Your task to perform on an android device: Clear the cart on ebay. Add duracell triple a to the cart on ebay Image 0: 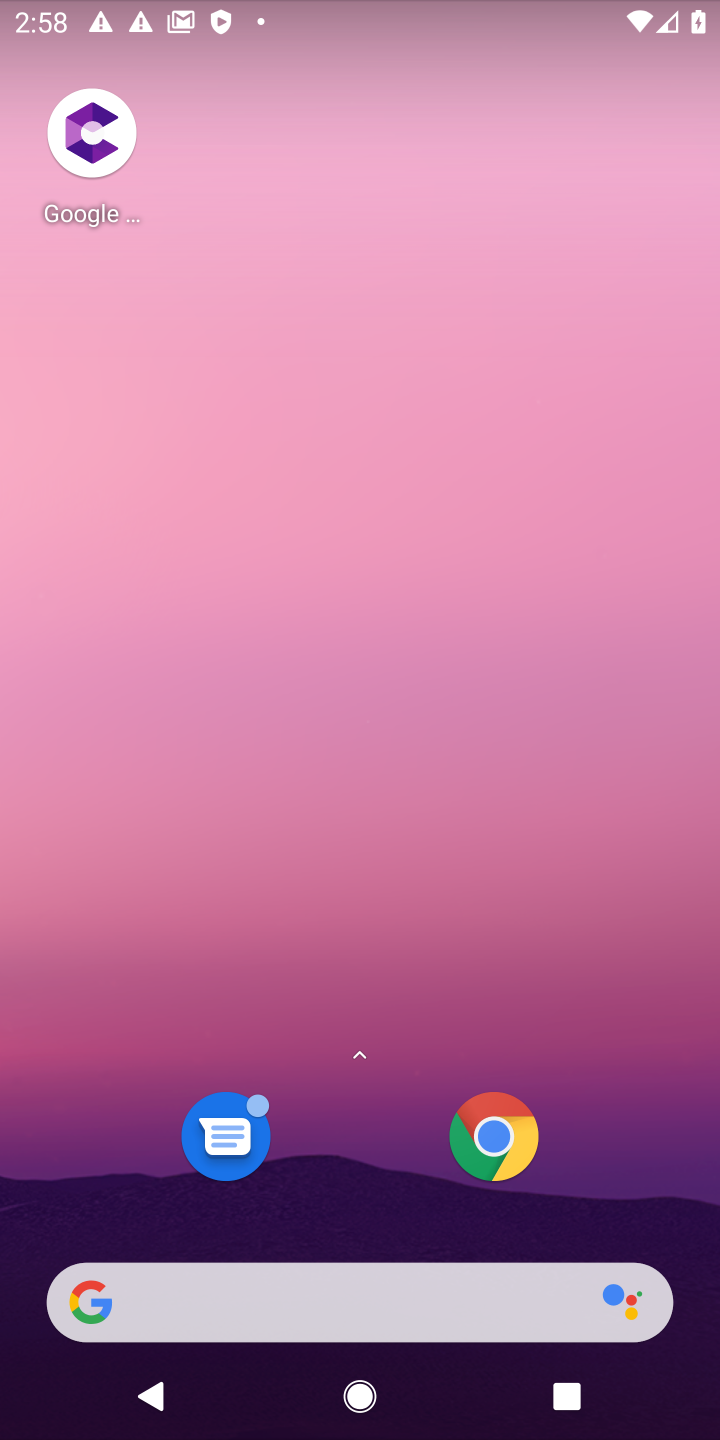
Step 0: drag from (388, 748) to (439, 0)
Your task to perform on an android device: Clear the cart on ebay. Add duracell triple a to the cart on ebay Image 1: 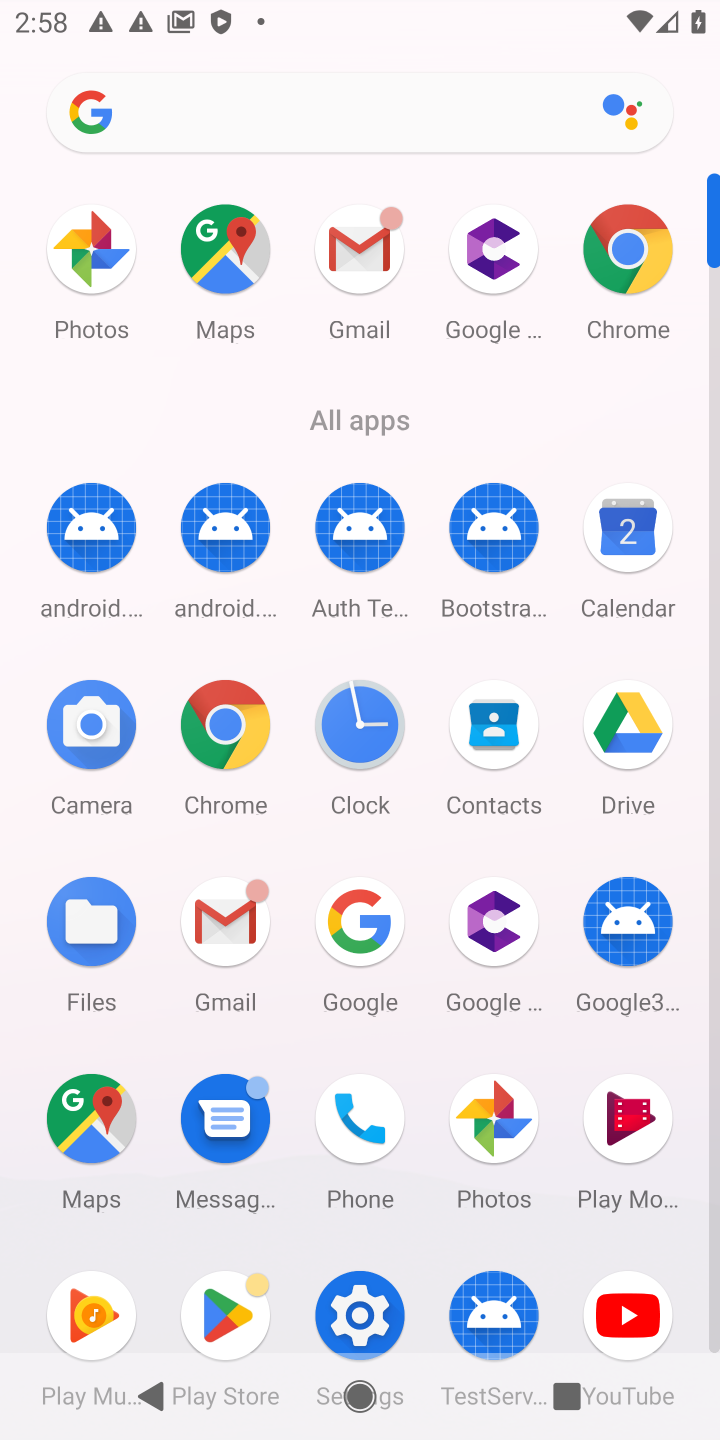
Step 1: click (227, 713)
Your task to perform on an android device: Clear the cart on ebay. Add duracell triple a to the cart on ebay Image 2: 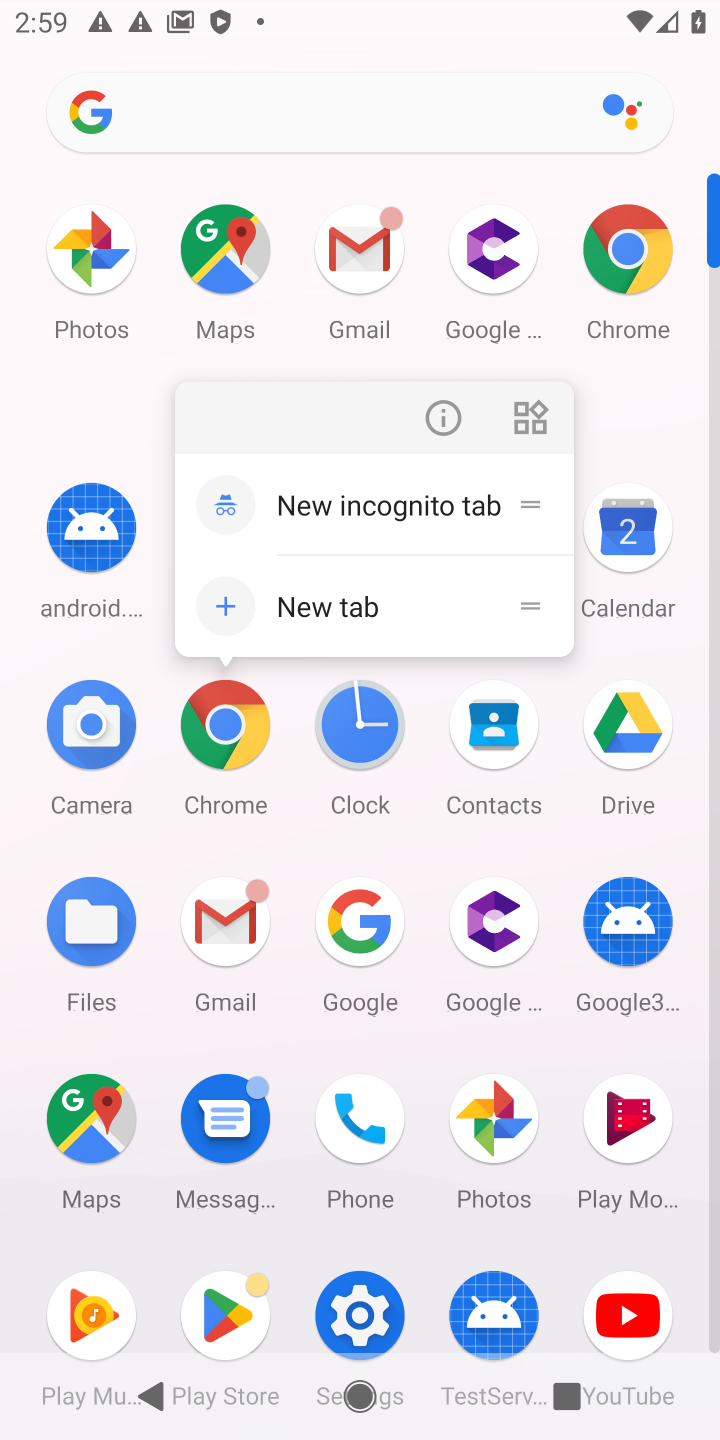
Step 2: click (220, 718)
Your task to perform on an android device: Clear the cart on ebay. Add duracell triple a to the cart on ebay Image 3: 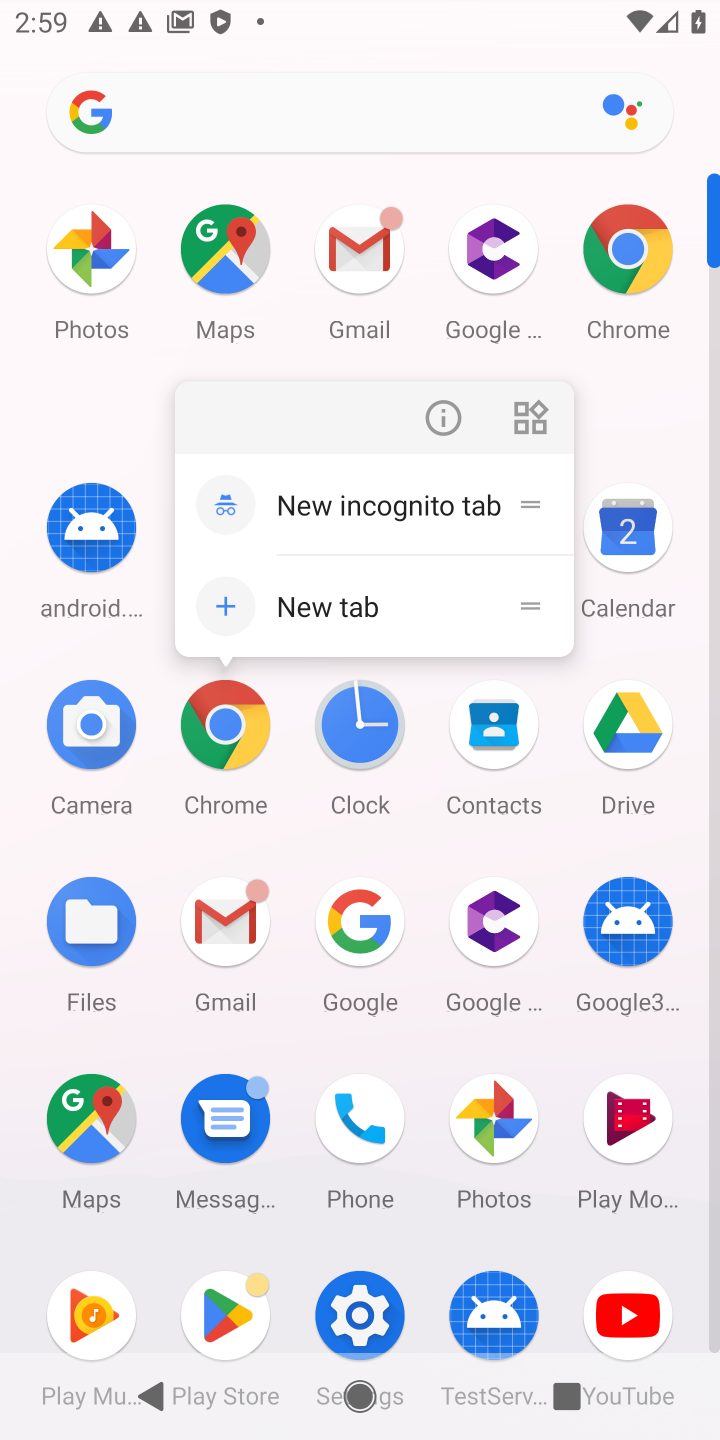
Step 3: click (220, 718)
Your task to perform on an android device: Clear the cart on ebay. Add duracell triple a to the cart on ebay Image 4: 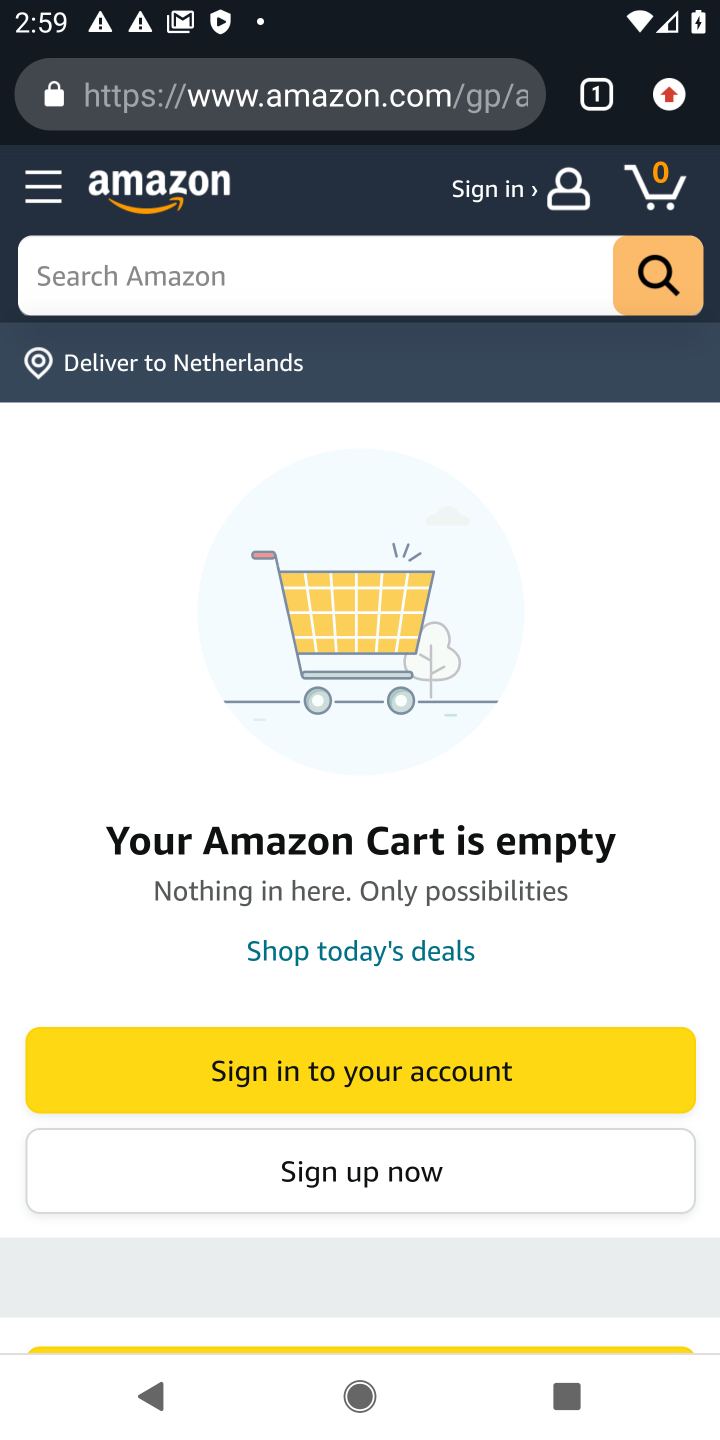
Step 4: click (404, 121)
Your task to perform on an android device: Clear the cart on ebay. Add duracell triple a to the cart on ebay Image 5: 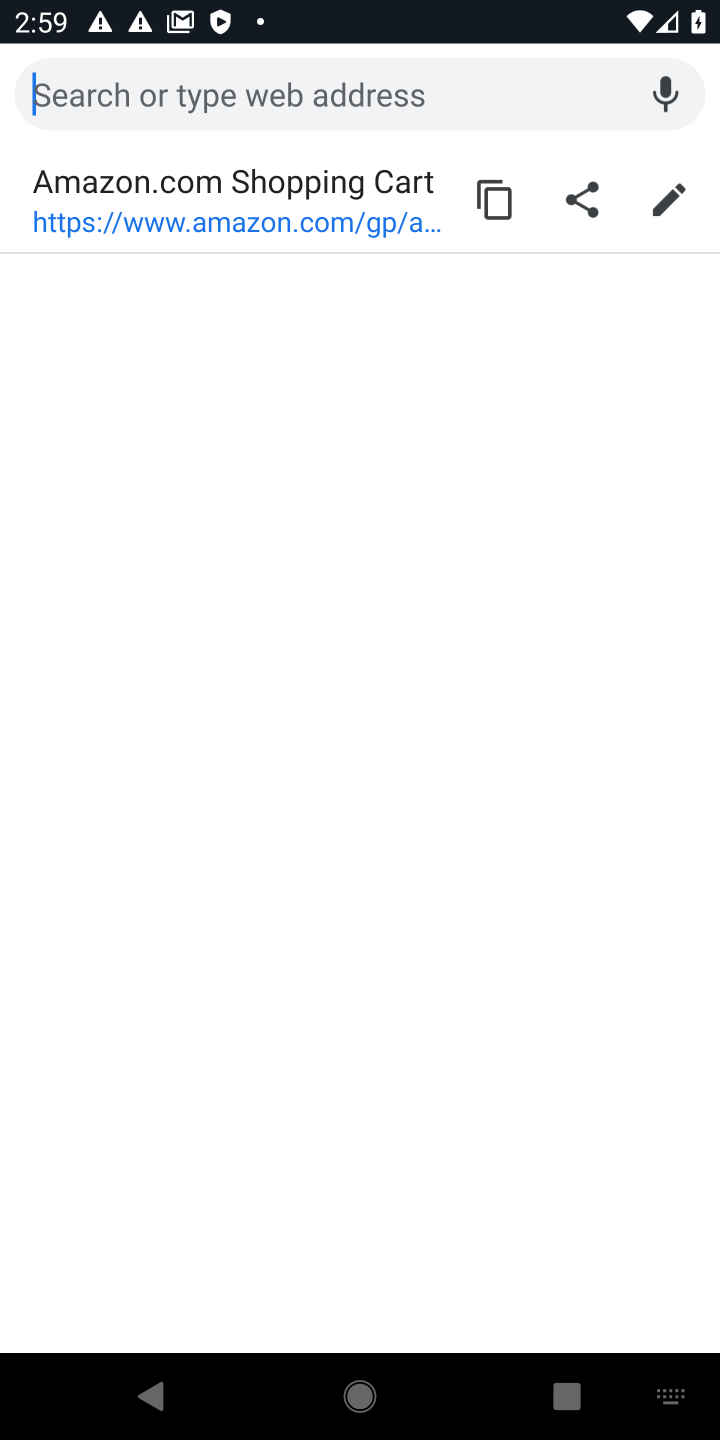
Step 5: type "ebay.com"
Your task to perform on an android device: Clear the cart on ebay. Add duracell triple a to the cart on ebay Image 6: 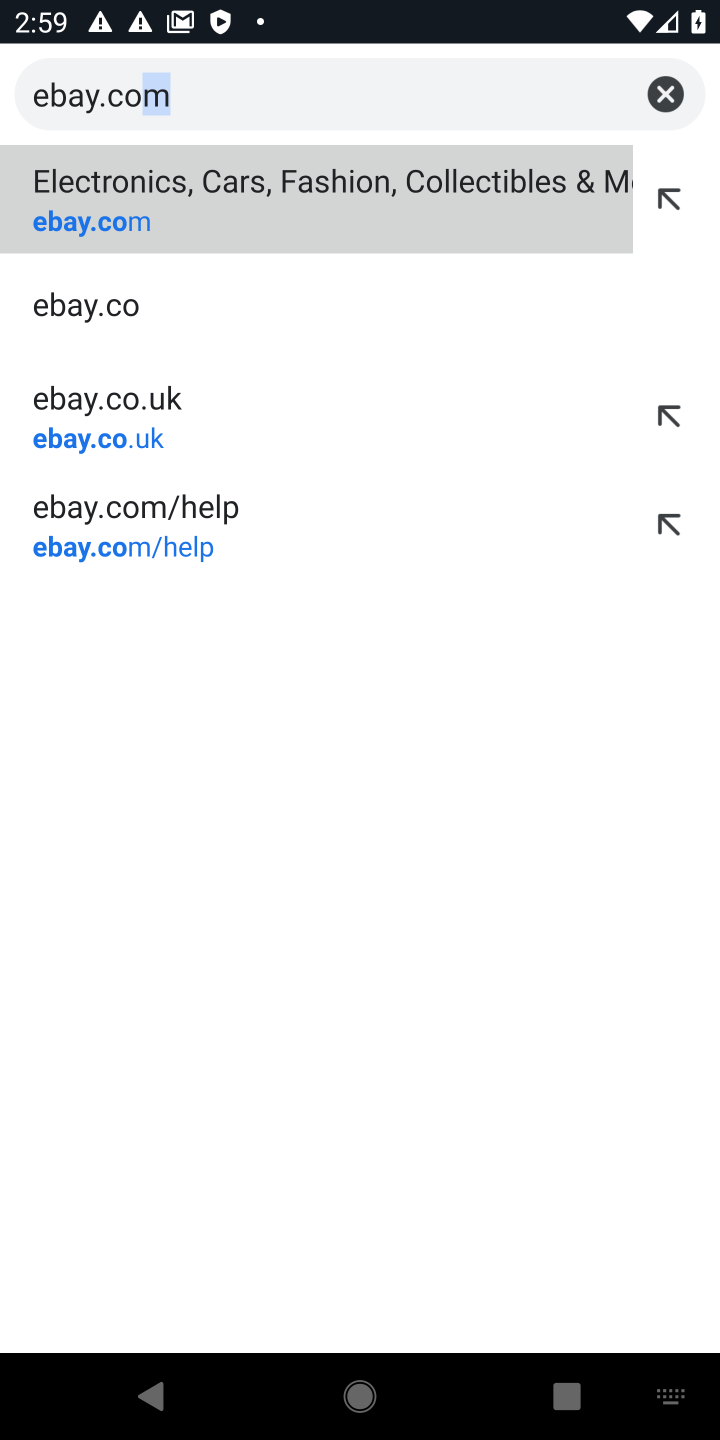
Step 6: press enter
Your task to perform on an android device: Clear the cart on ebay. Add duracell triple a to the cart on ebay Image 7: 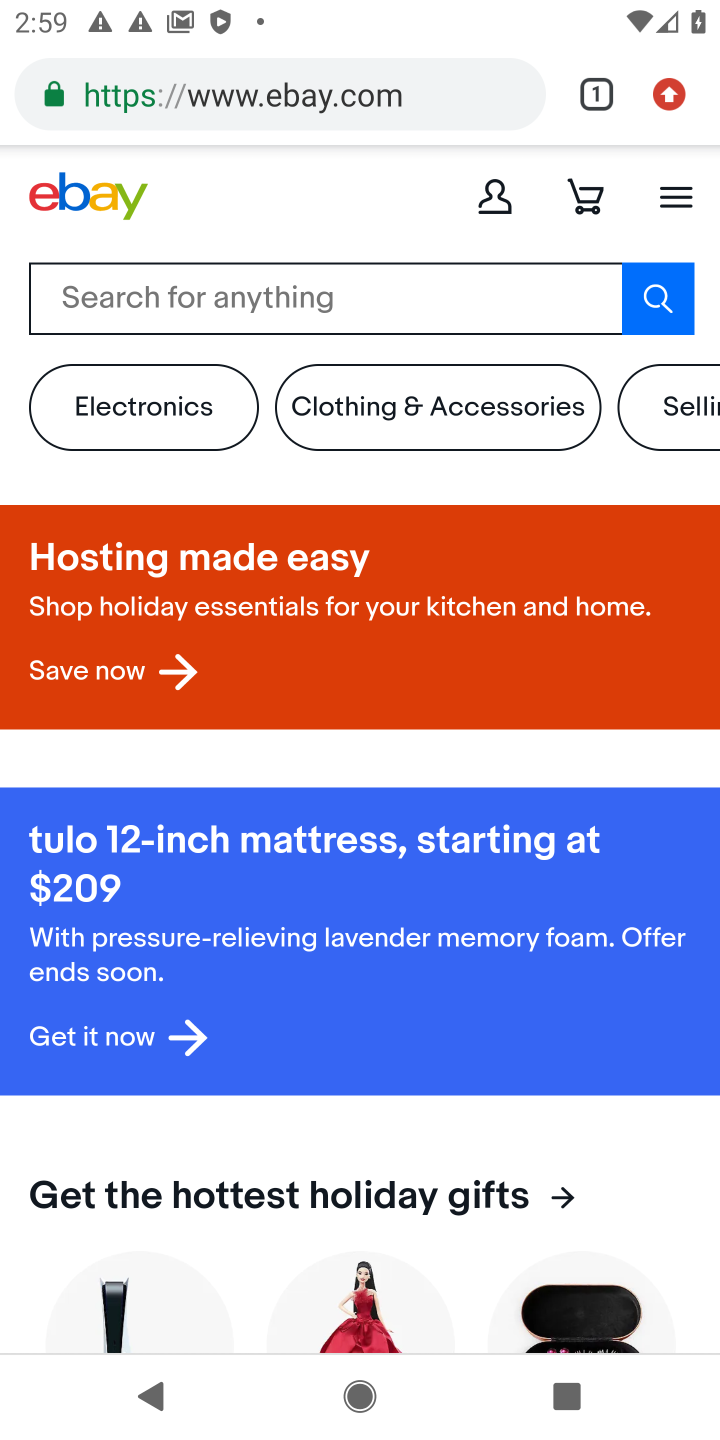
Step 7: click (435, 295)
Your task to perform on an android device: Clear the cart on ebay. Add duracell triple a to the cart on ebay Image 8: 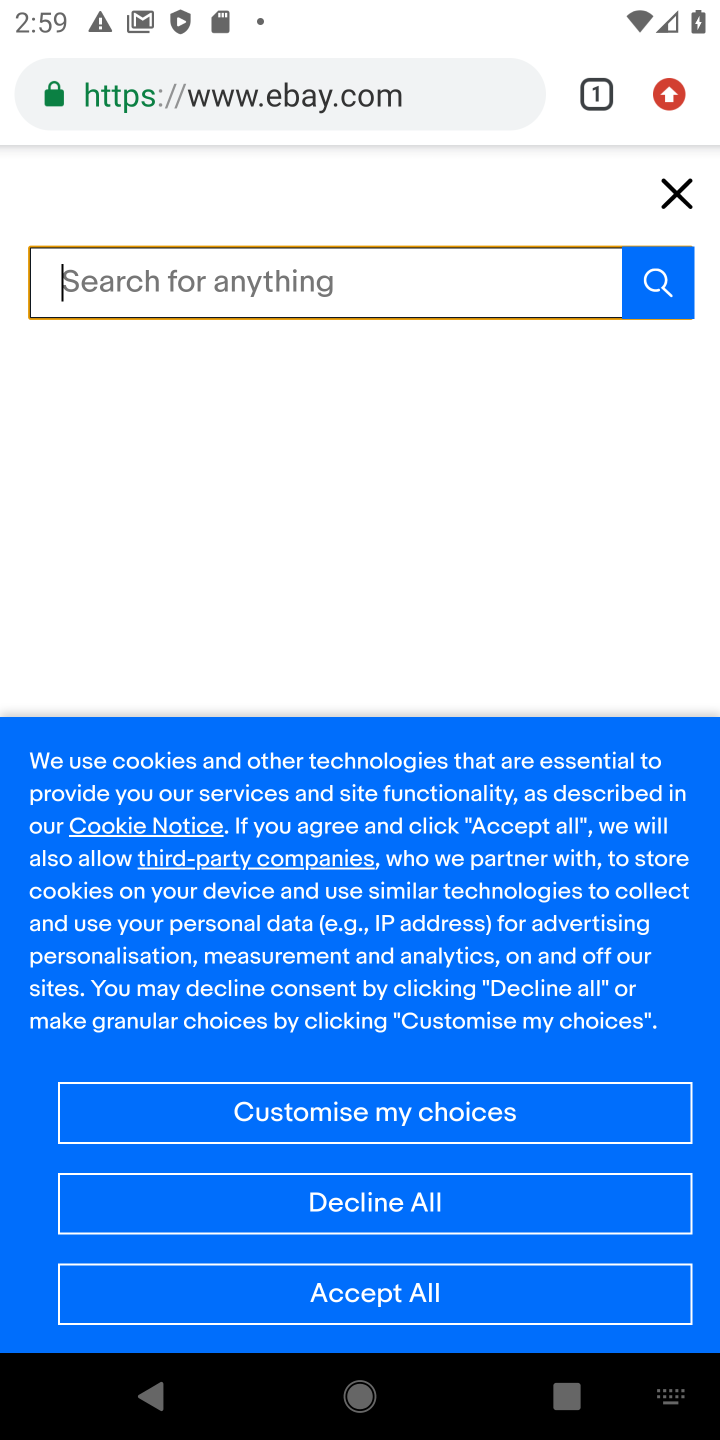
Step 8: type "duracell triple a"
Your task to perform on an android device: Clear the cart on ebay. Add duracell triple a to the cart on ebay Image 9: 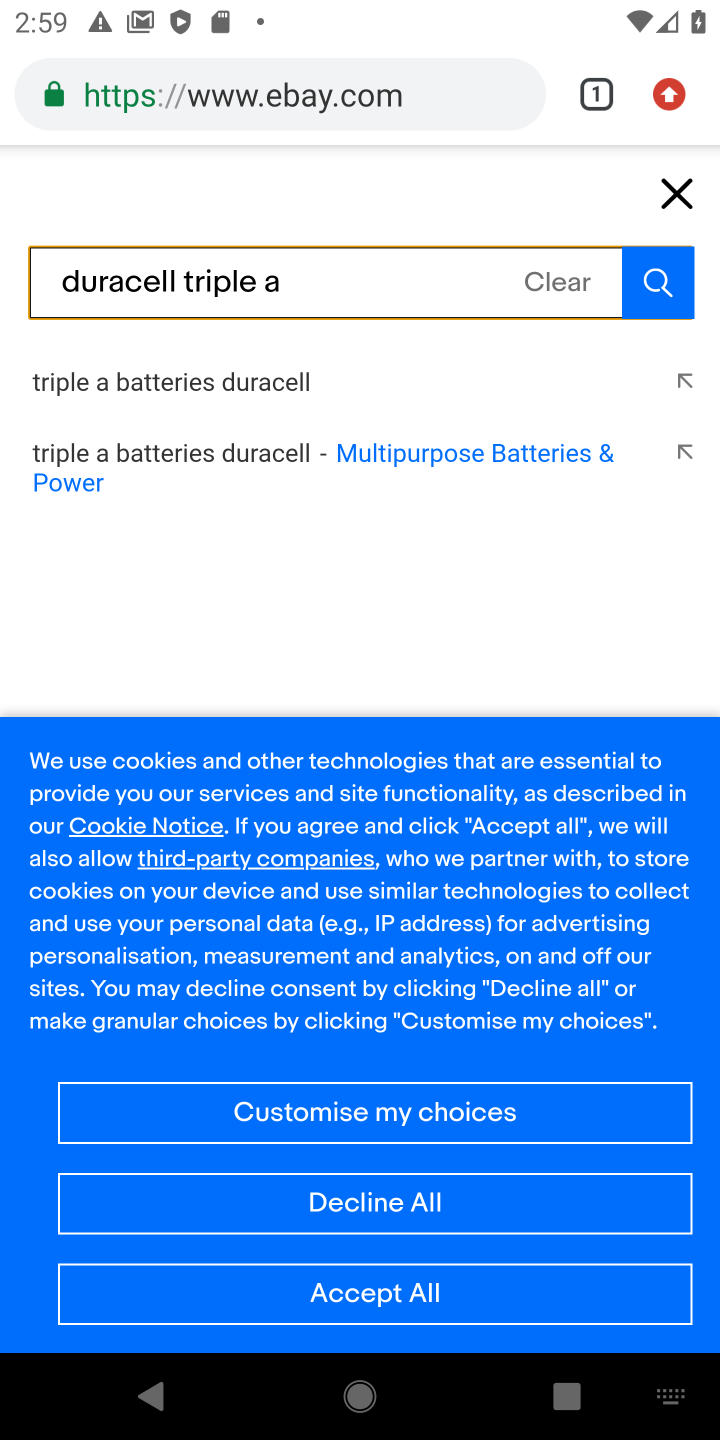
Step 9: press enter
Your task to perform on an android device: Clear the cart on ebay. Add duracell triple a to the cart on ebay Image 10: 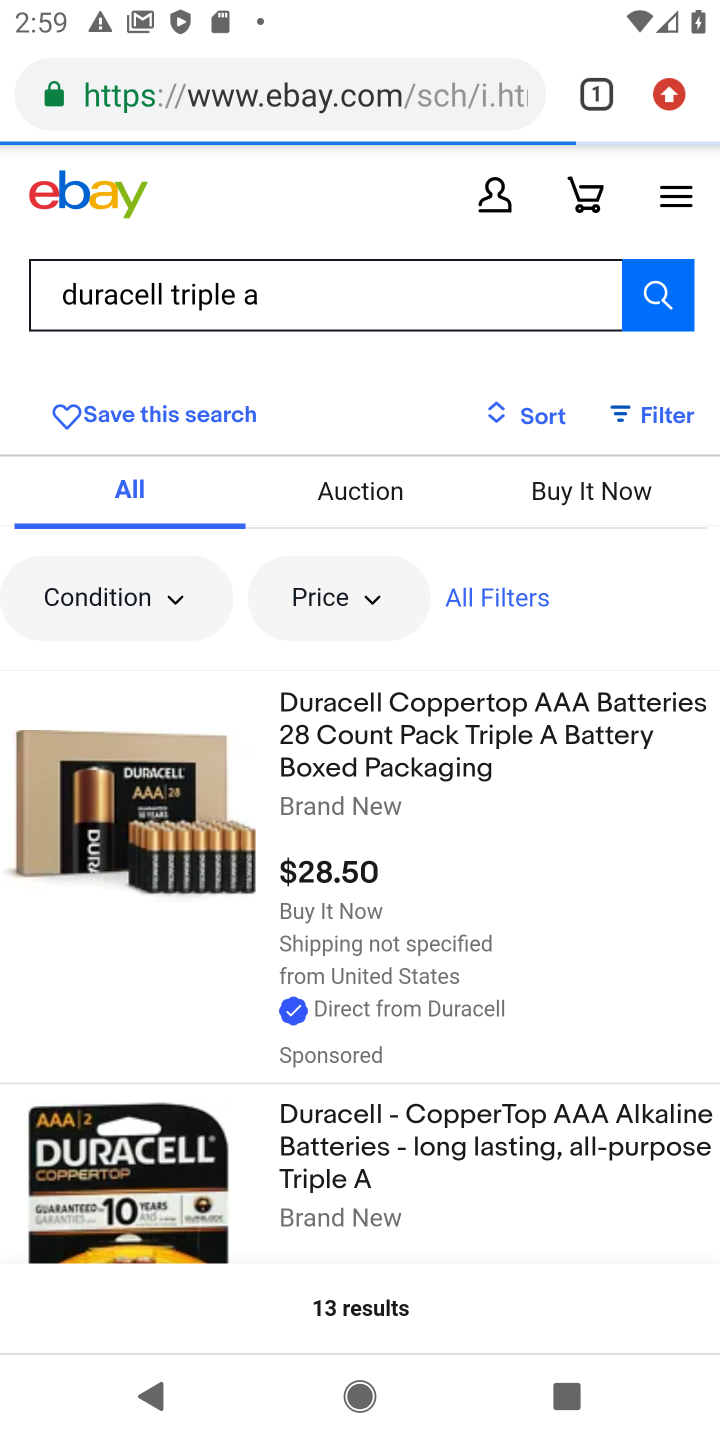
Step 10: click (130, 875)
Your task to perform on an android device: Clear the cart on ebay. Add duracell triple a to the cart on ebay Image 11: 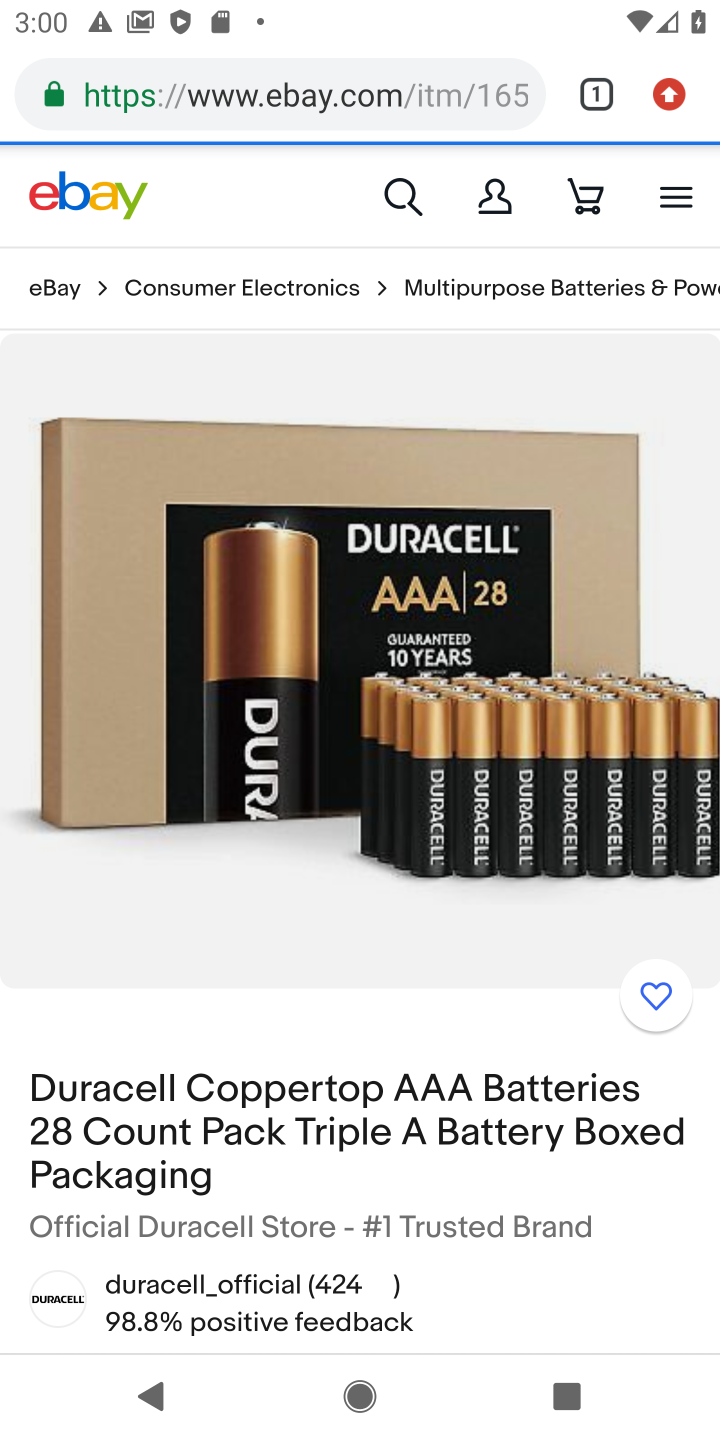
Step 11: drag from (347, 782) to (441, 354)
Your task to perform on an android device: Clear the cart on ebay. Add duracell triple a to the cart on ebay Image 12: 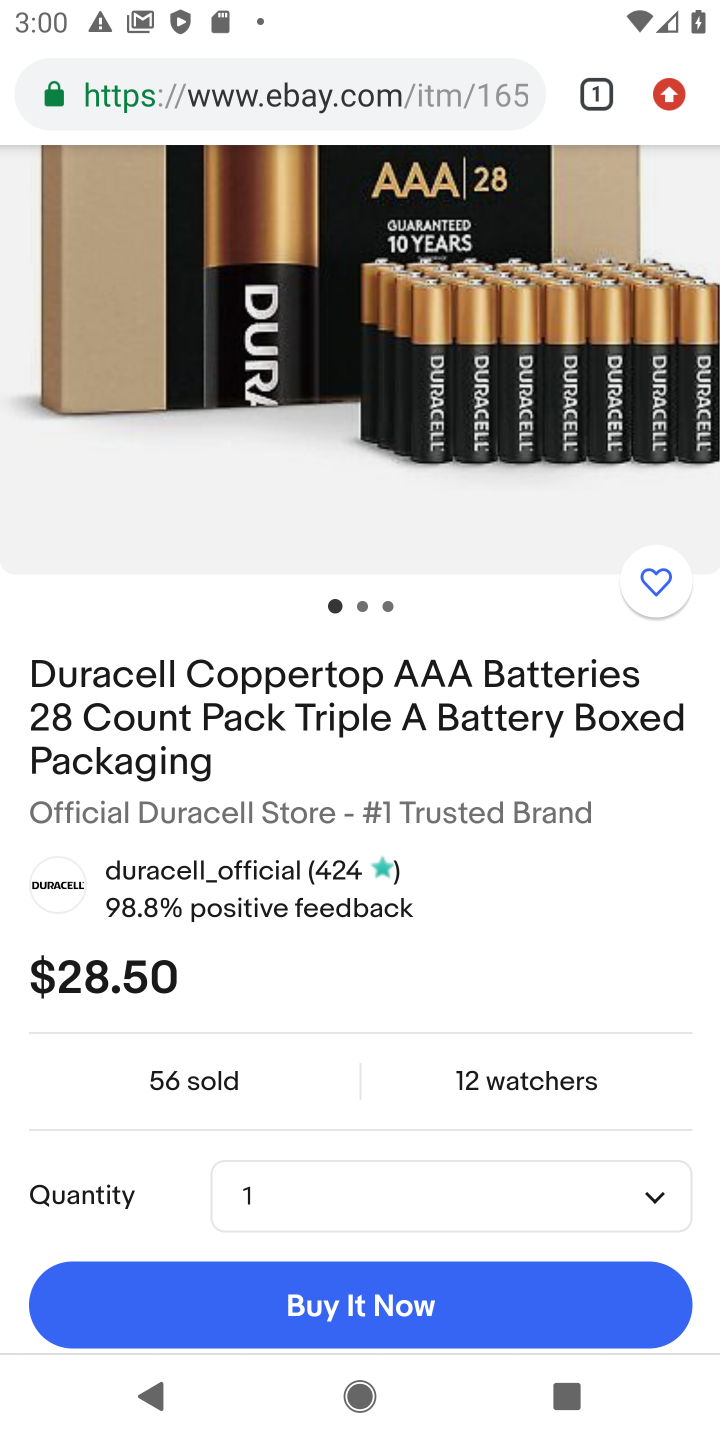
Step 12: drag from (419, 1002) to (494, 684)
Your task to perform on an android device: Clear the cart on ebay. Add duracell triple a to the cart on ebay Image 13: 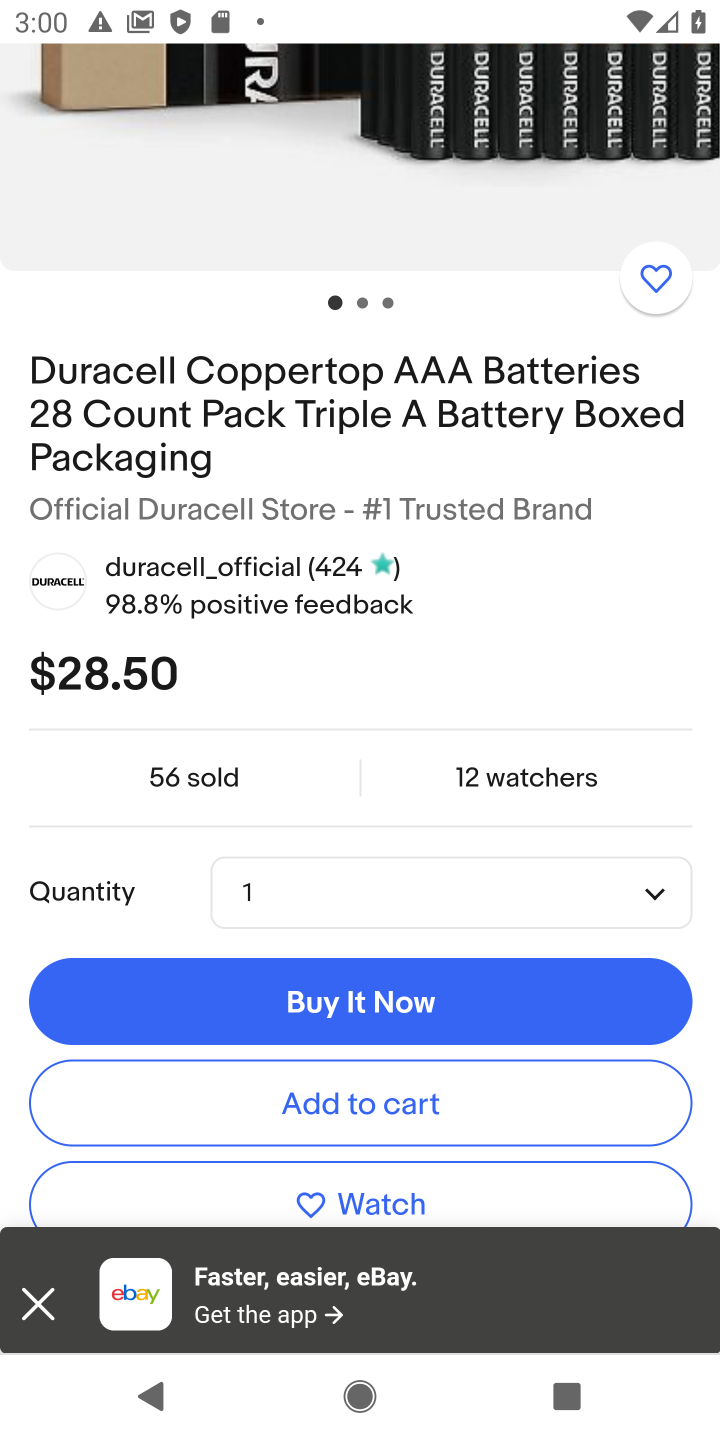
Step 13: click (439, 1128)
Your task to perform on an android device: Clear the cart on ebay. Add duracell triple a to the cart on ebay Image 14: 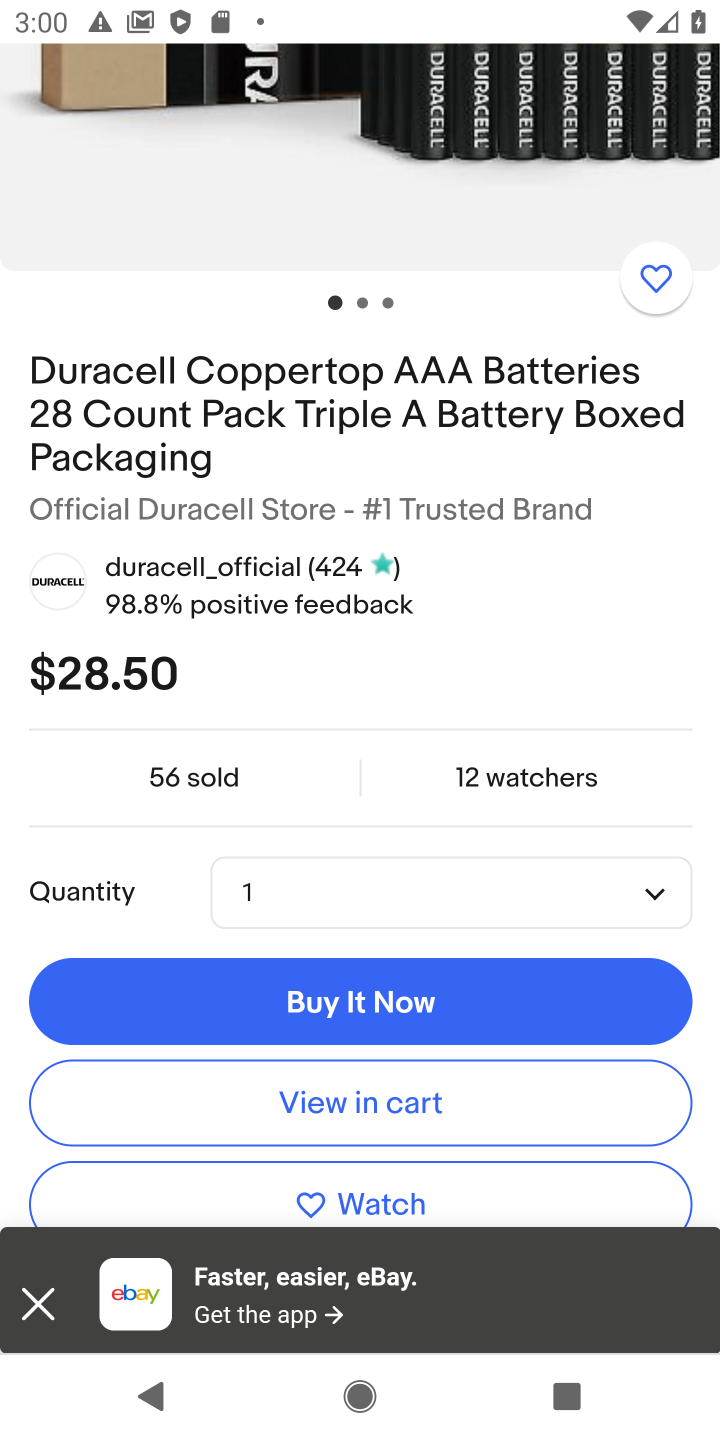
Step 14: task complete